Your task to perform on an android device: turn on location history Image 0: 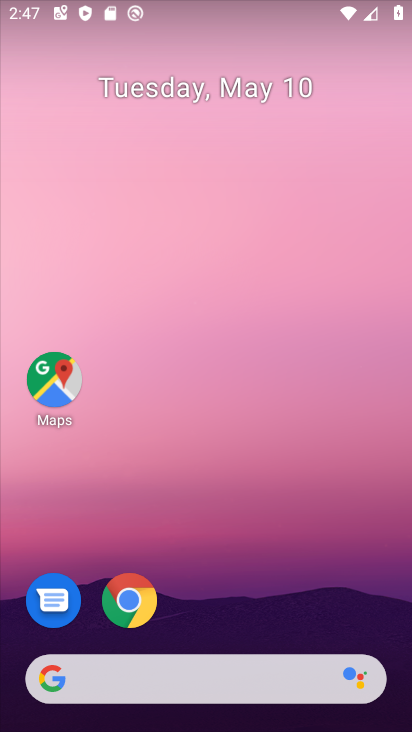
Step 0: drag from (242, 606) to (260, 174)
Your task to perform on an android device: turn on location history Image 1: 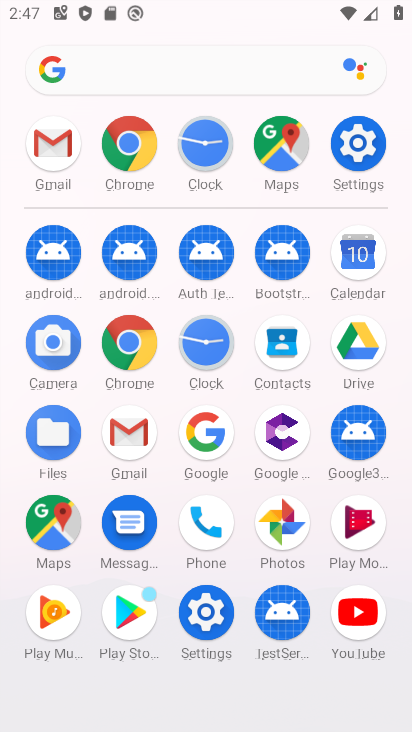
Step 1: click (365, 169)
Your task to perform on an android device: turn on location history Image 2: 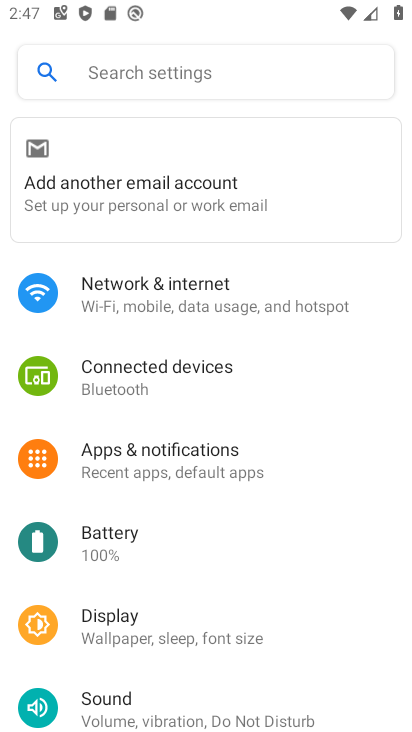
Step 2: drag from (207, 585) to (258, 357)
Your task to perform on an android device: turn on location history Image 3: 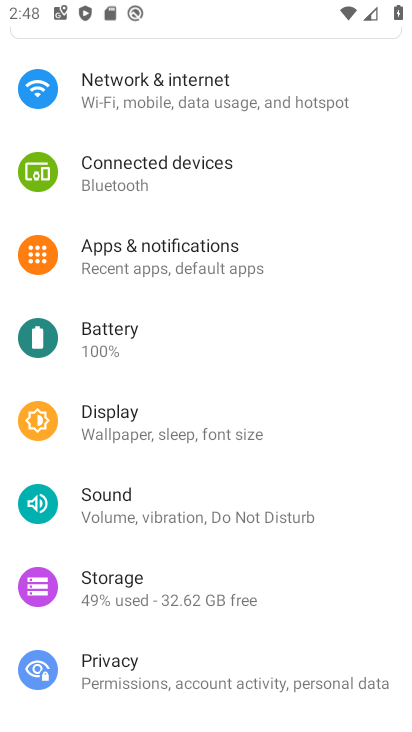
Step 3: drag from (195, 571) to (227, 315)
Your task to perform on an android device: turn on location history Image 4: 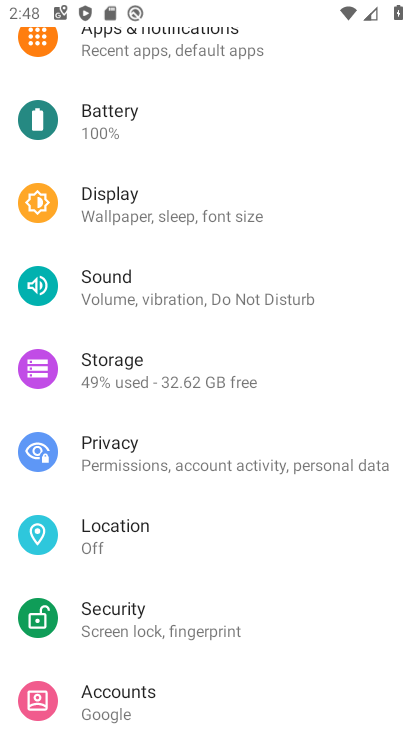
Step 4: click (178, 550)
Your task to perform on an android device: turn on location history Image 5: 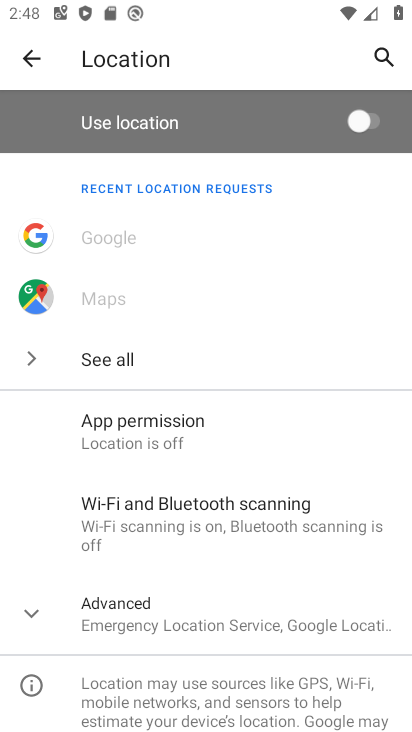
Step 5: drag from (228, 570) to (218, 191)
Your task to perform on an android device: turn on location history Image 6: 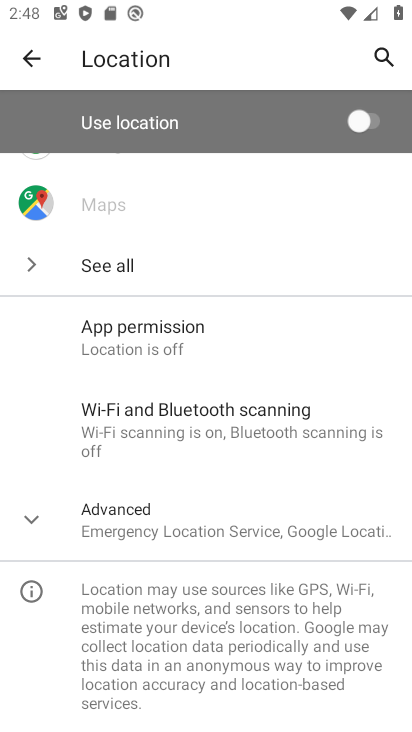
Step 6: click (189, 509)
Your task to perform on an android device: turn on location history Image 7: 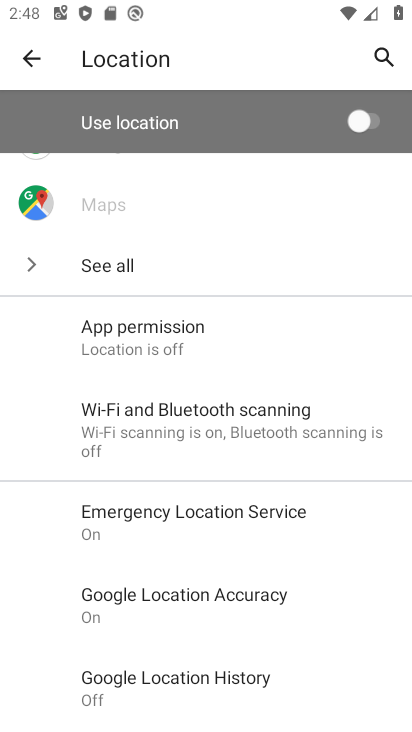
Step 7: drag from (169, 564) to (203, 345)
Your task to perform on an android device: turn on location history Image 8: 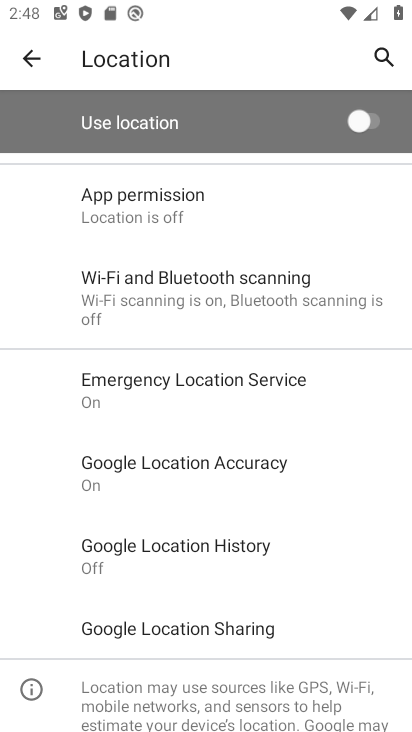
Step 8: click (232, 556)
Your task to perform on an android device: turn on location history Image 9: 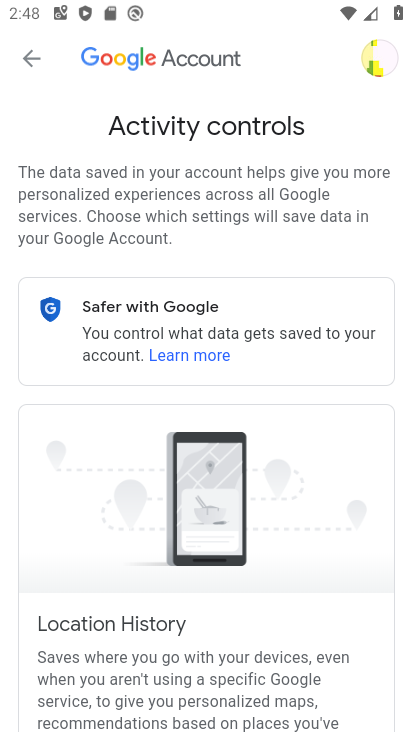
Step 9: drag from (283, 619) to (220, 213)
Your task to perform on an android device: turn on location history Image 10: 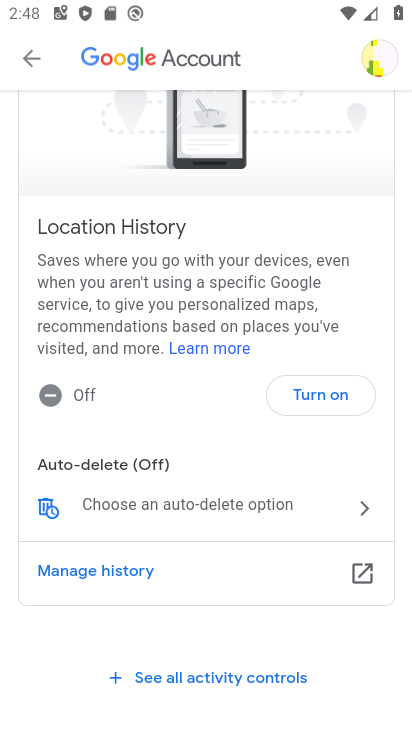
Step 10: drag from (243, 552) to (193, 400)
Your task to perform on an android device: turn on location history Image 11: 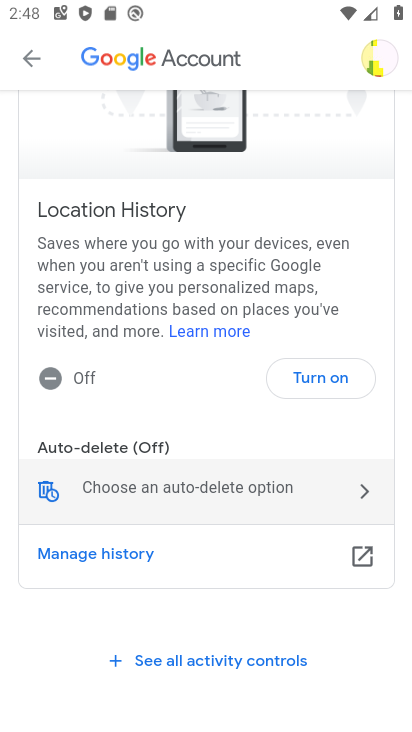
Step 11: click (327, 383)
Your task to perform on an android device: turn on location history Image 12: 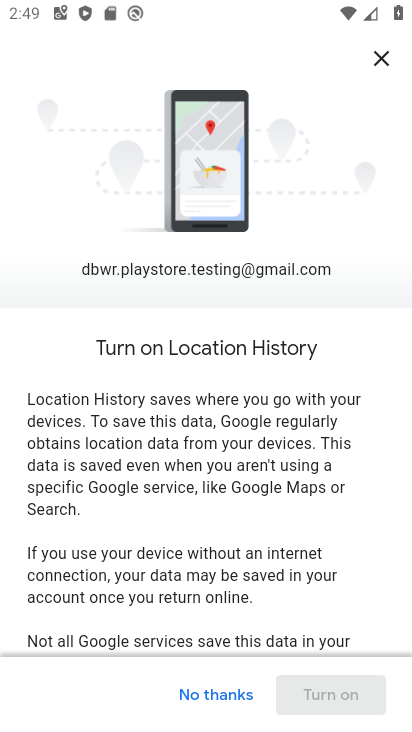
Step 12: drag from (262, 502) to (171, 0)
Your task to perform on an android device: turn on location history Image 13: 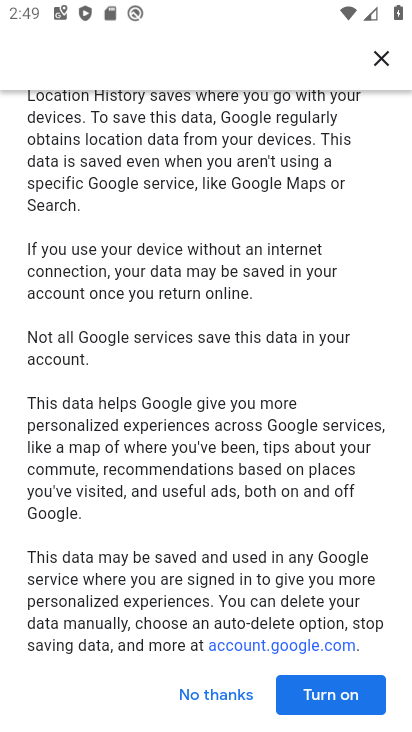
Step 13: click (352, 697)
Your task to perform on an android device: turn on location history Image 14: 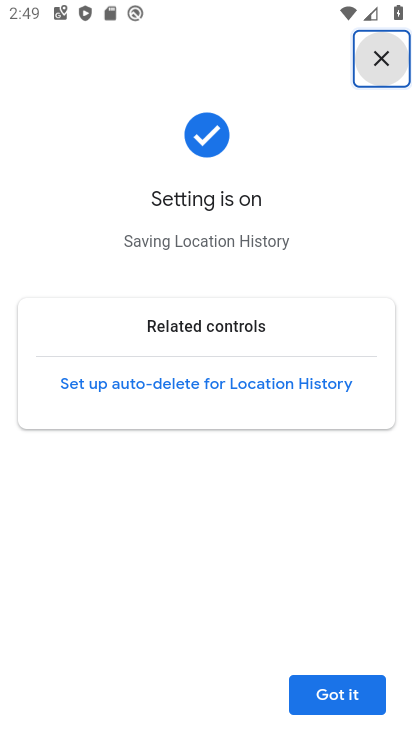
Step 14: click (359, 702)
Your task to perform on an android device: turn on location history Image 15: 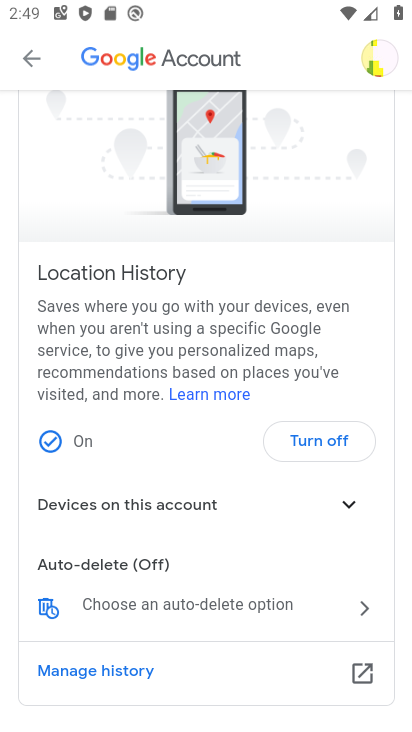
Step 15: task complete